Your task to perform on an android device: toggle airplane mode Image 0: 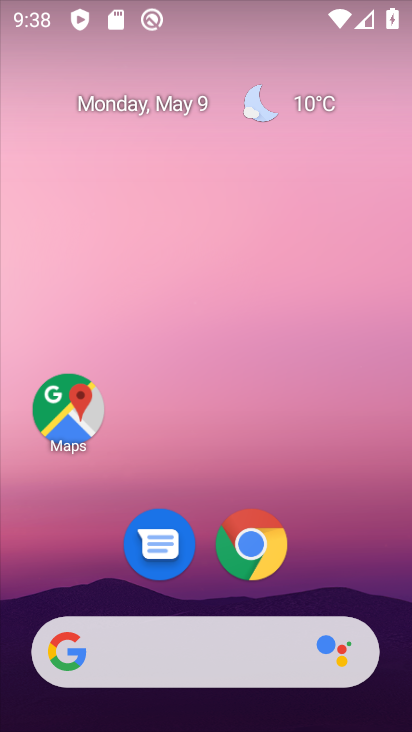
Step 0: drag from (393, 680) to (363, 324)
Your task to perform on an android device: toggle airplane mode Image 1: 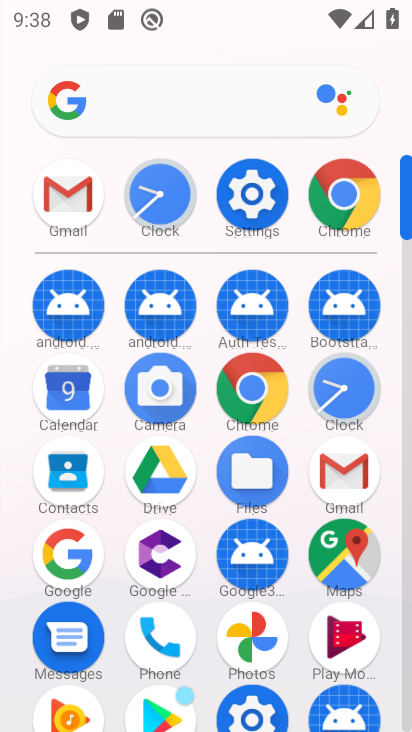
Step 1: click (273, 216)
Your task to perform on an android device: toggle airplane mode Image 2: 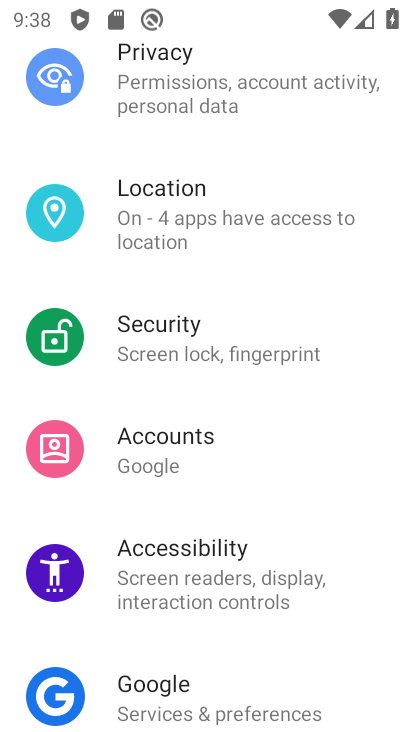
Step 2: drag from (354, 156) to (377, 596)
Your task to perform on an android device: toggle airplane mode Image 3: 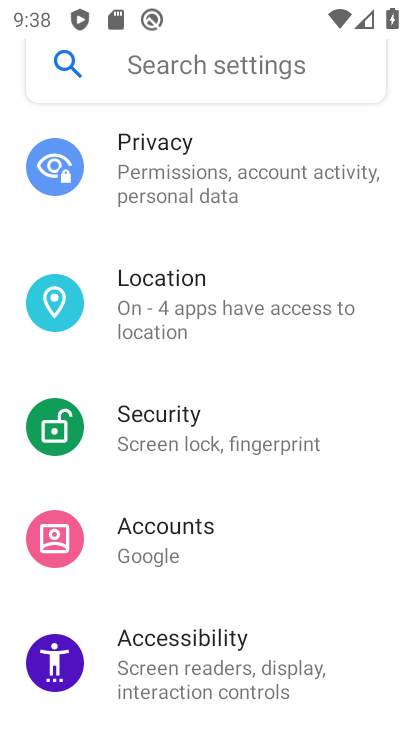
Step 3: drag from (336, 132) to (354, 523)
Your task to perform on an android device: toggle airplane mode Image 4: 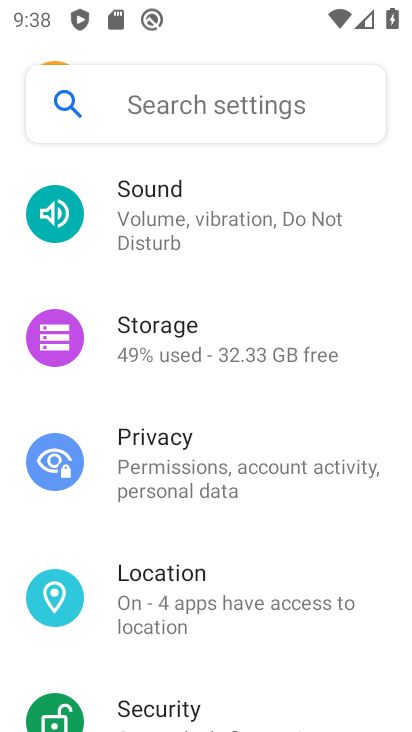
Step 4: drag from (375, 199) to (359, 669)
Your task to perform on an android device: toggle airplane mode Image 5: 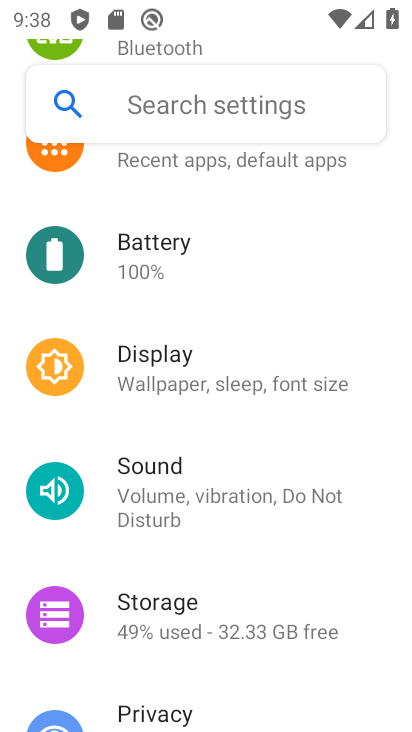
Step 5: drag from (366, 198) to (355, 639)
Your task to perform on an android device: toggle airplane mode Image 6: 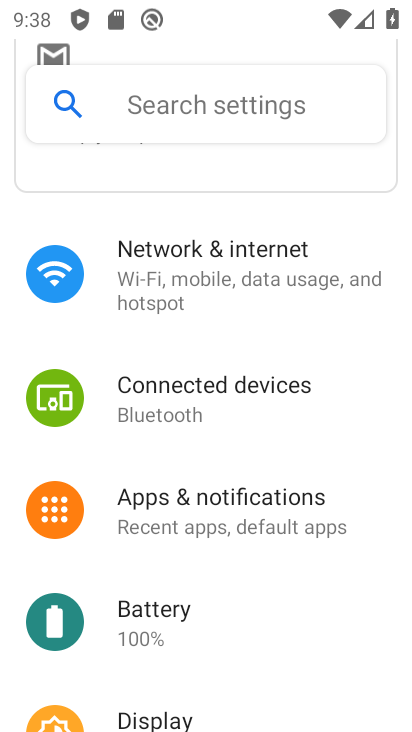
Step 6: click (238, 259)
Your task to perform on an android device: toggle airplane mode Image 7: 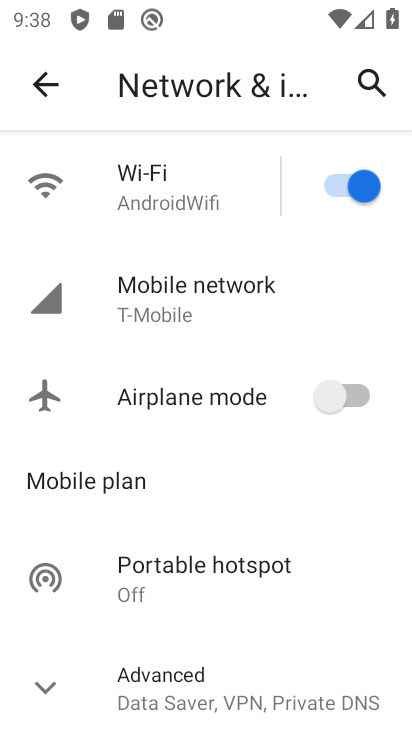
Step 7: click (360, 394)
Your task to perform on an android device: toggle airplane mode Image 8: 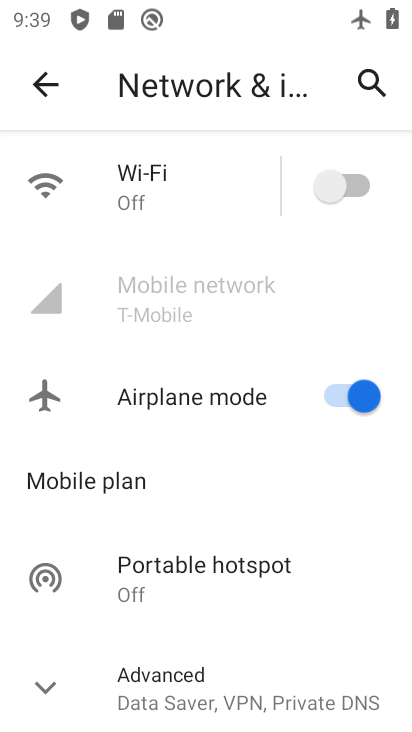
Step 8: task complete